Your task to perform on an android device: Search for Italian restaurants on Maps Image 0: 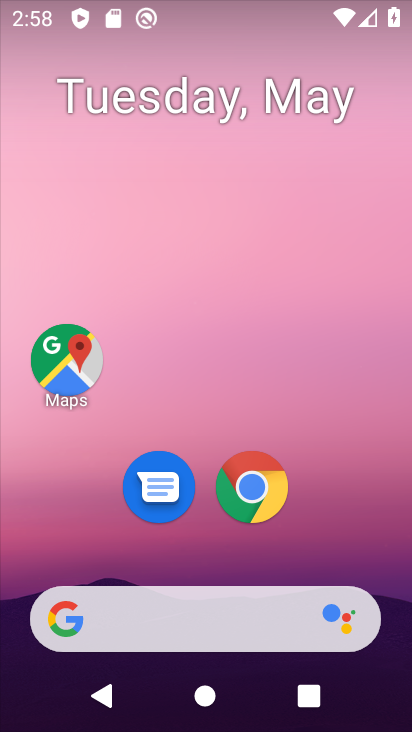
Step 0: click (92, 357)
Your task to perform on an android device: Search for Italian restaurants on Maps Image 1: 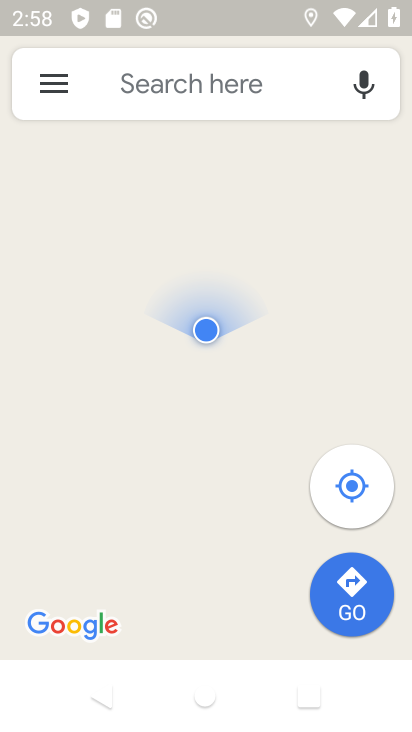
Step 1: click (210, 100)
Your task to perform on an android device: Search for Italian restaurants on Maps Image 2: 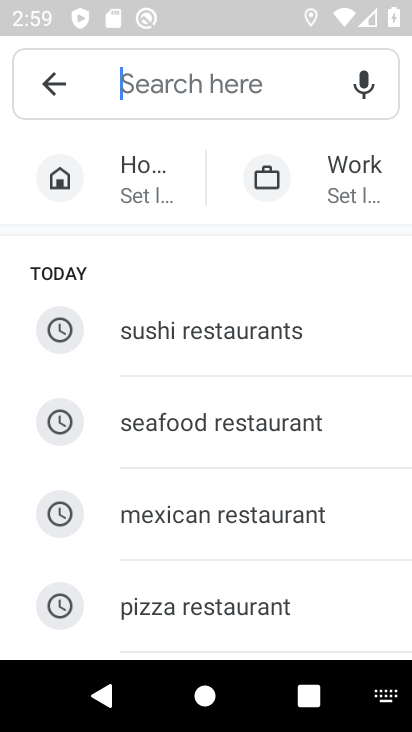
Step 2: type "Italian restaurants"
Your task to perform on an android device: Search for Italian restaurants on Maps Image 3: 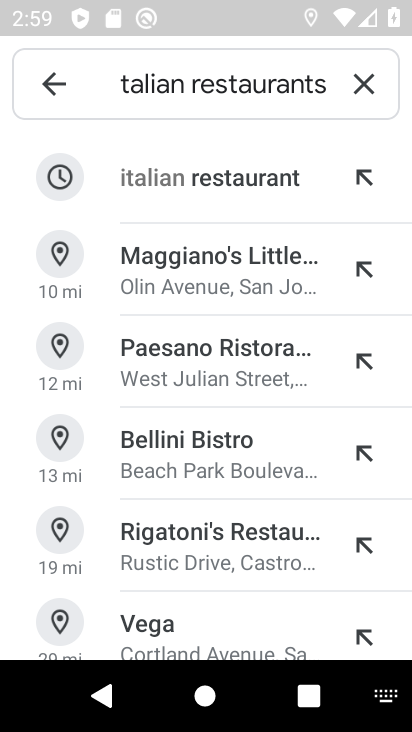
Step 3: click (269, 185)
Your task to perform on an android device: Search for Italian restaurants on Maps Image 4: 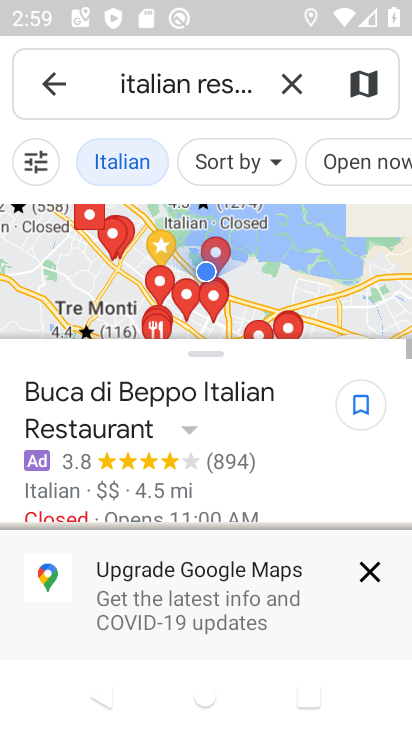
Step 4: task complete